Your task to perform on an android device: What's the news in Brazil? Image 0: 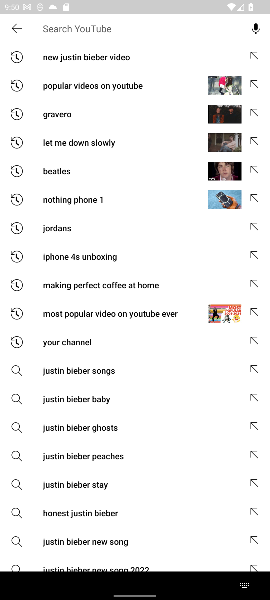
Step 0: type "What's the news in Brazil"
Your task to perform on an android device: What's the news in Brazil? Image 1: 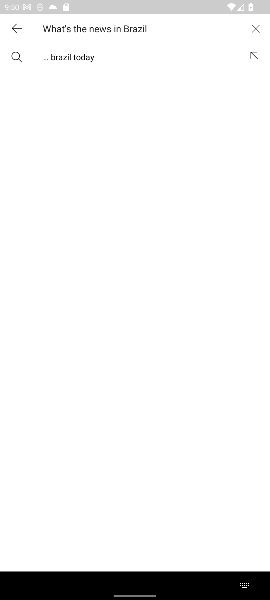
Step 1: click (72, 55)
Your task to perform on an android device: What's the news in Brazil? Image 2: 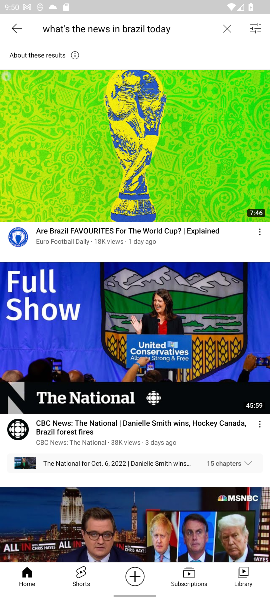
Step 2: task complete